Your task to perform on an android device: change your default location settings in chrome Image 0: 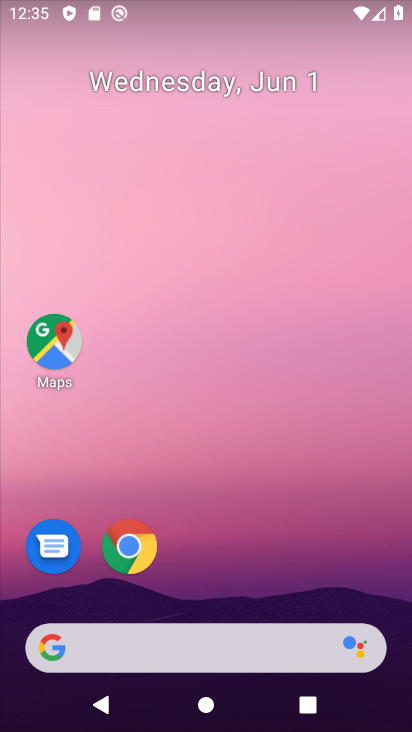
Step 0: click (141, 543)
Your task to perform on an android device: change your default location settings in chrome Image 1: 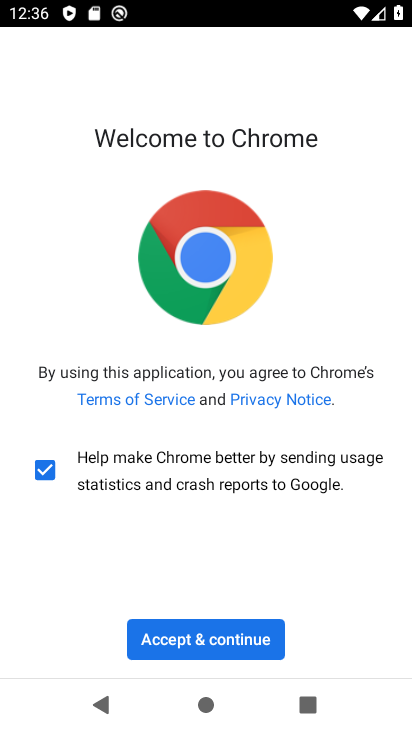
Step 1: click (207, 630)
Your task to perform on an android device: change your default location settings in chrome Image 2: 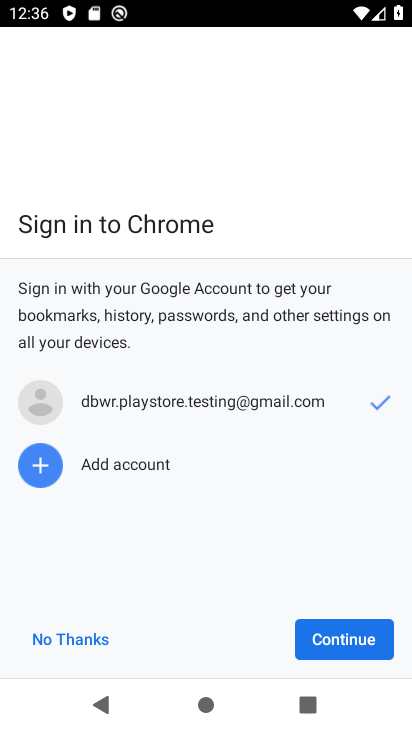
Step 2: click (353, 626)
Your task to perform on an android device: change your default location settings in chrome Image 3: 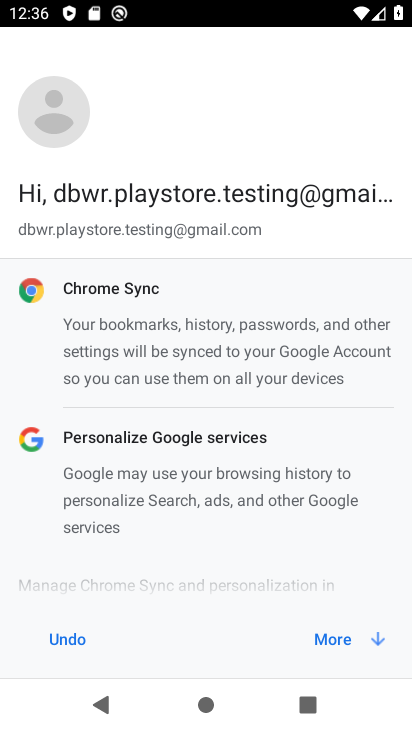
Step 3: click (353, 636)
Your task to perform on an android device: change your default location settings in chrome Image 4: 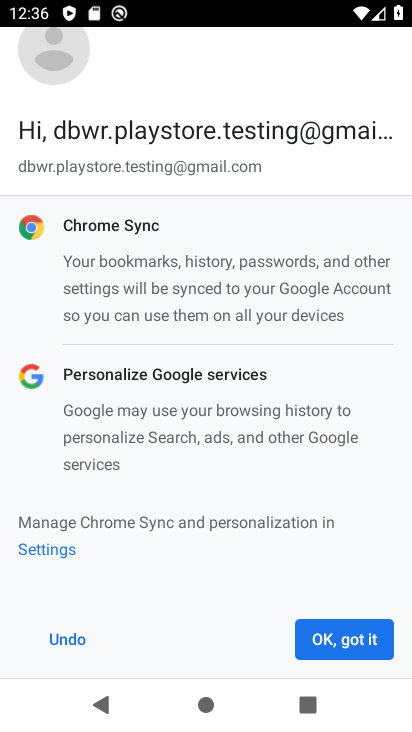
Step 4: click (353, 636)
Your task to perform on an android device: change your default location settings in chrome Image 5: 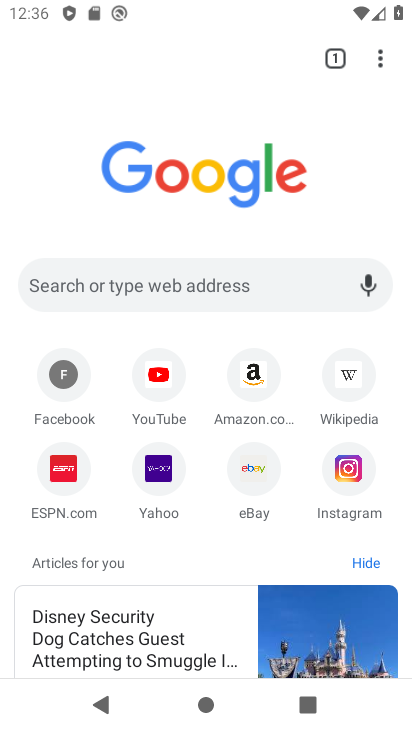
Step 5: click (375, 50)
Your task to perform on an android device: change your default location settings in chrome Image 6: 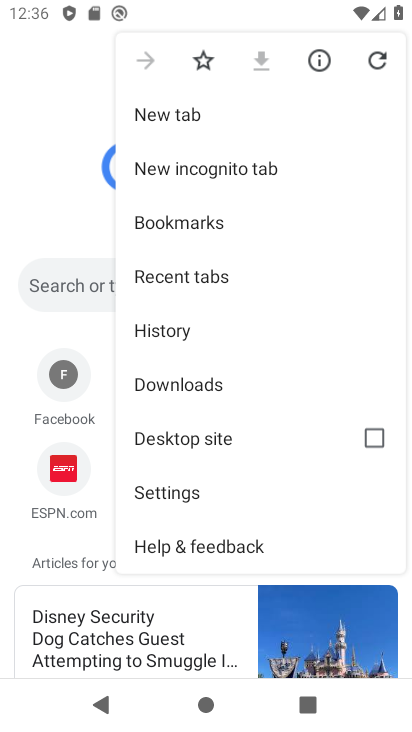
Step 6: click (207, 486)
Your task to perform on an android device: change your default location settings in chrome Image 7: 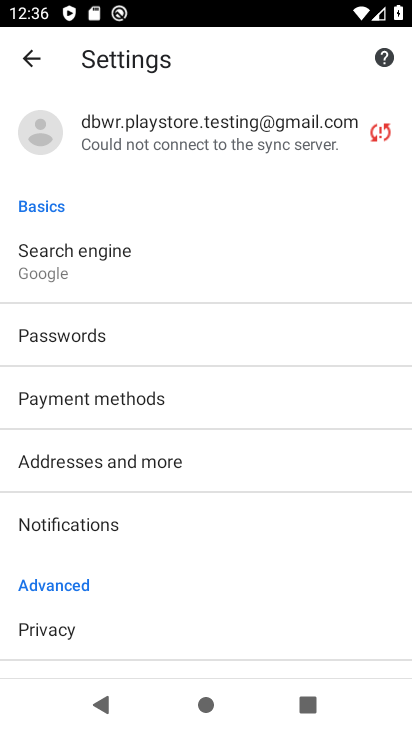
Step 7: drag from (142, 595) to (114, 372)
Your task to perform on an android device: change your default location settings in chrome Image 8: 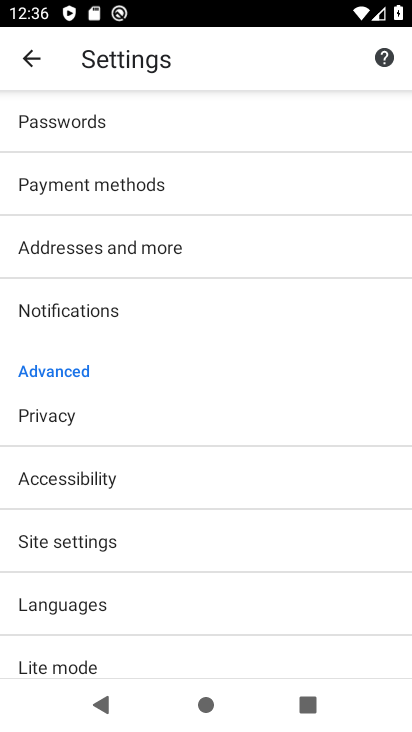
Step 8: click (122, 540)
Your task to perform on an android device: change your default location settings in chrome Image 9: 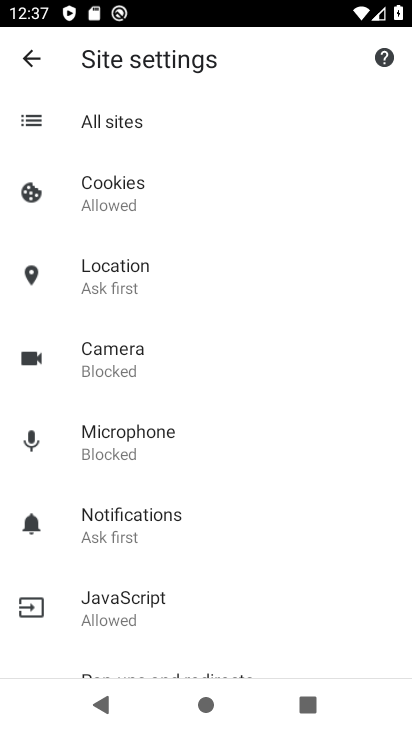
Step 9: click (159, 289)
Your task to perform on an android device: change your default location settings in chrome Image 10: 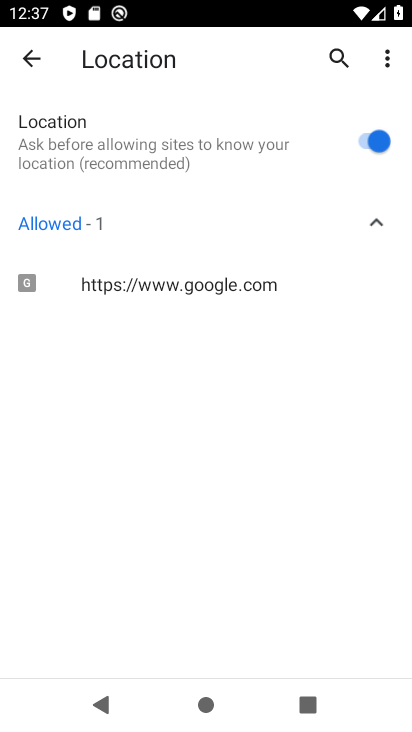
Step 10: click (380, 134)
Your task to perform on an android device: change your default location settings in chrome Image 11: 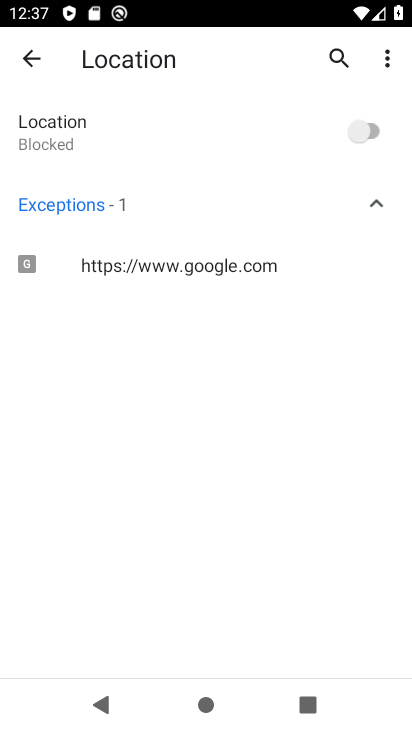
Step 11: task complete